Your task to perform on an android device: turn on the 24-hour format for clock Image 0: 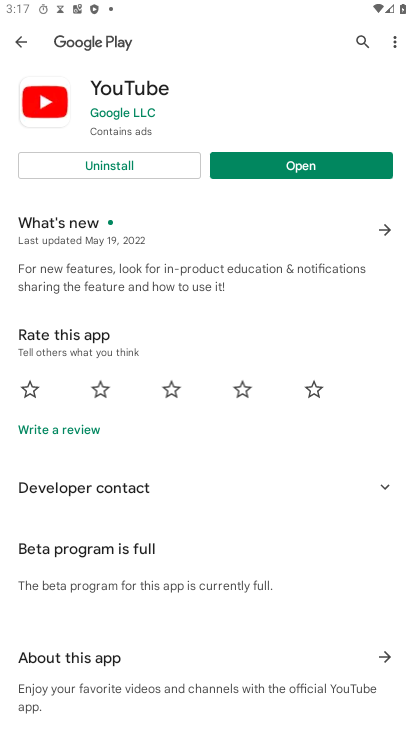
Step 0: press home button
Your task to perform on an android device: turn on the 24-hour format for clock Image 1: 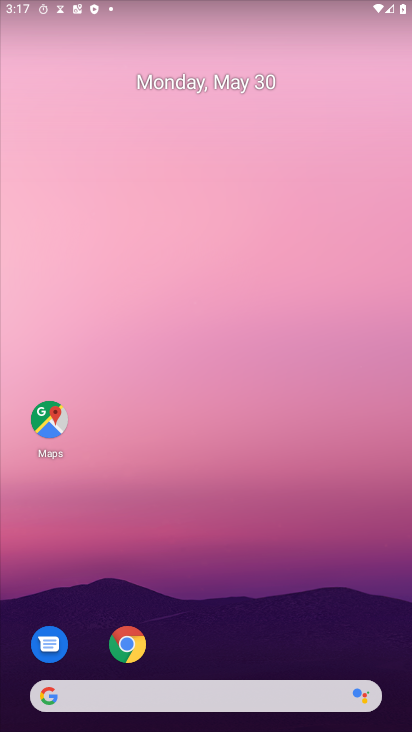
Step 1: drag from (291, 653) to (257, 178)
Your task to perform on an android device: turn on the 24-hour format for clock Image 2: 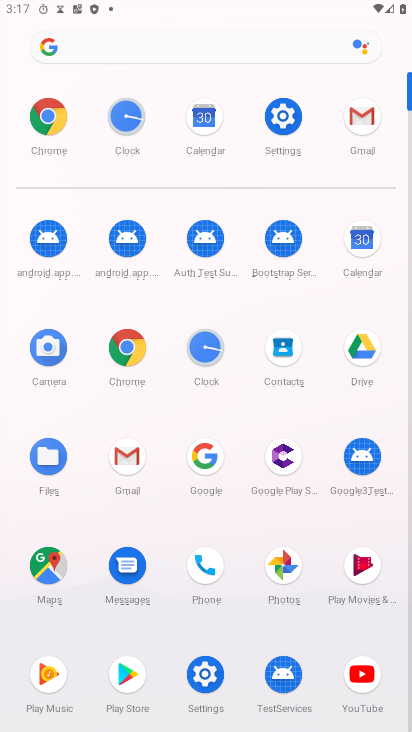
Step 2: click (279, 134)
Your task to perform on an android device: turn on the 24-hour format for clock Image 3: 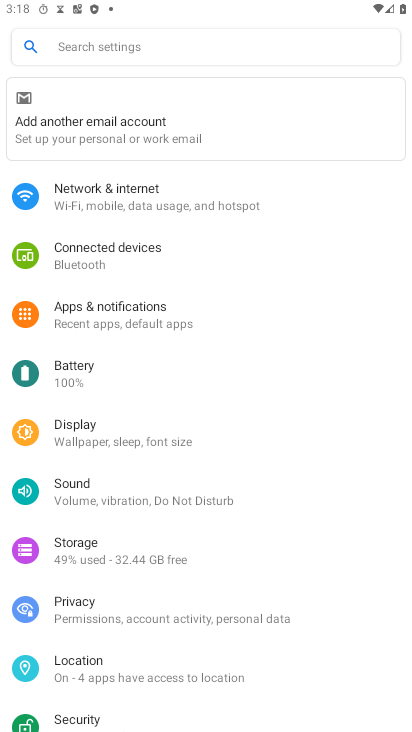
Step 3: drag from (289, 641) to (282, 128)
Your task to perform on an android device: turn on the 24-hour format for clock Image 4: 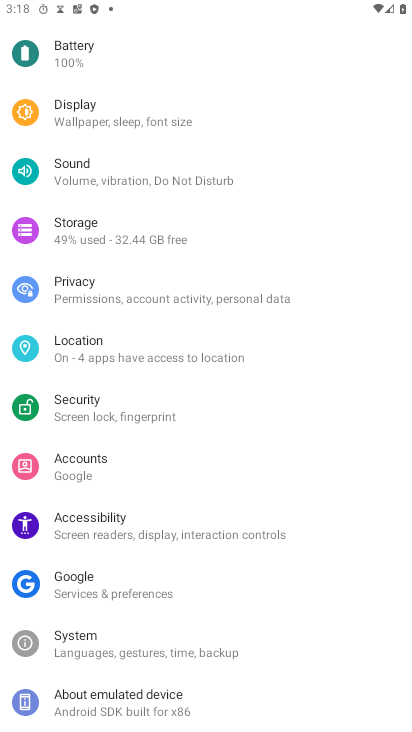
Step 4: click (89, 650)
Your task to perform on an android device: turn on the 24-hour format for clock Image 5: 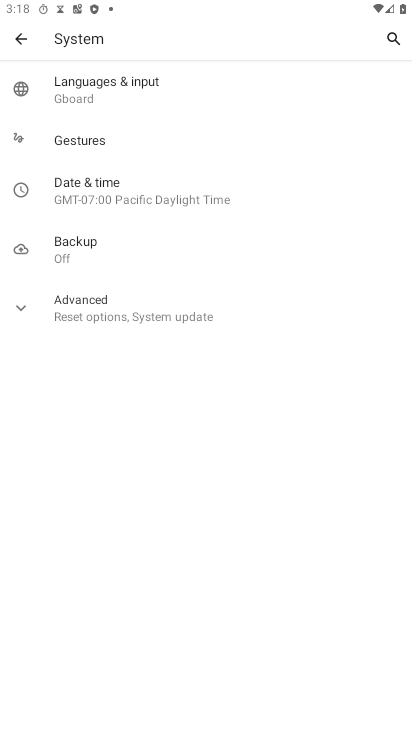
Step 5: click (83, 199)
Your task to perform on an android device: turn on the 24-hour format for clock Image 6: 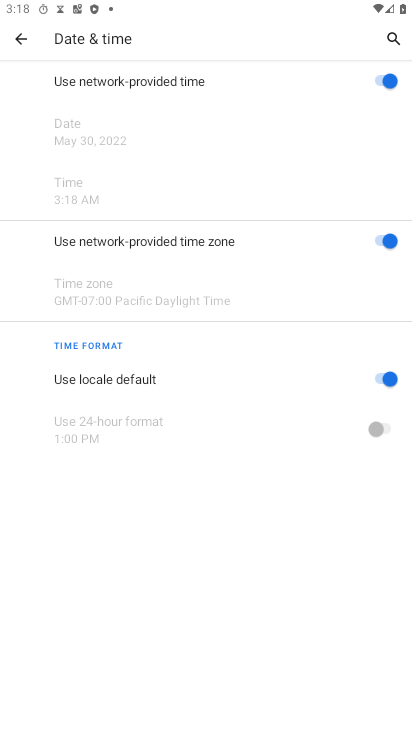
Step 6: click (390, 374)
Your task to perform on an android device: turn on the 24-hour format for clock Image 7: 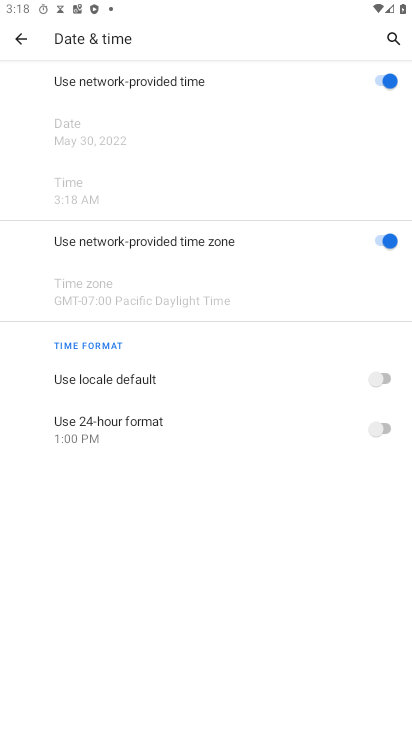
Step 7: click (377, 430)
Your task to perform on an android device: turn on the 24-hour format for clock Image 8: 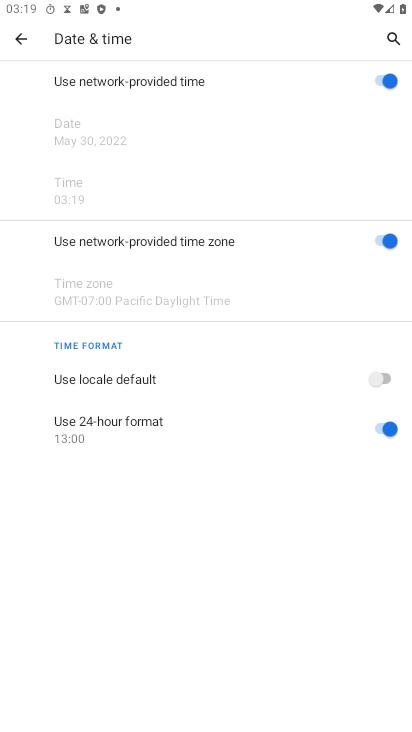
Step 8: task complete